Your task to perform on an android device: Go to Reddit.com Image 0: 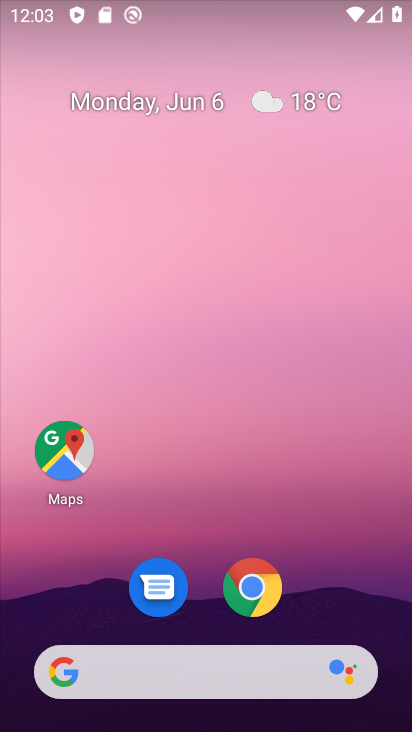
Step 0: drag from (378, 457) to (368, 142)
Your task to perform on an android device: Go to Reddit.com Image 1: 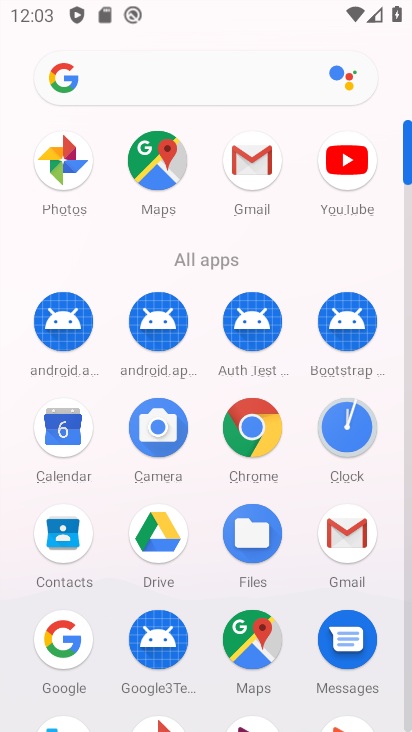
Step 1: drag from (324, 611) to (335, 332)
Your task to perform on an android device: Go to Reddit.com Image 2: 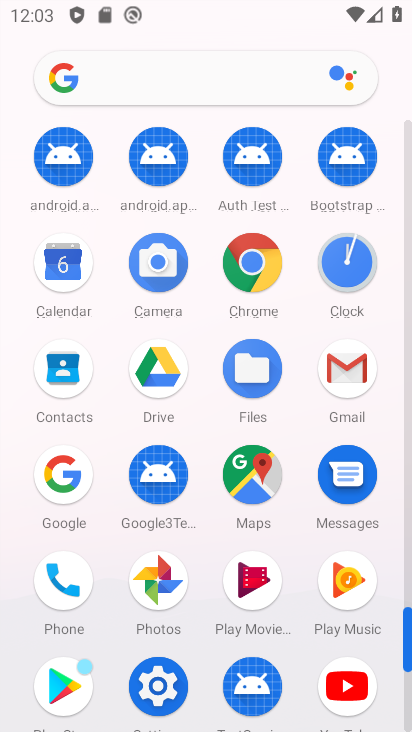
Step 2: click (265, 260)
Your task to perform on an android device: Go to Reddit.com Image 3: 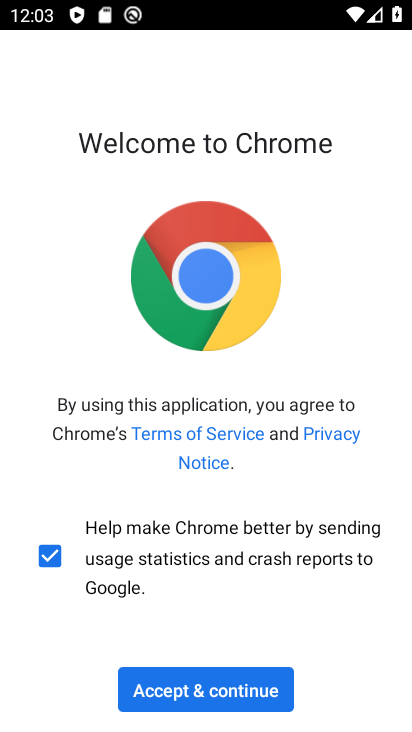
Step 3: click (169, 694)
Your task to perform on an android device: Go to Reddit.com Image 4: 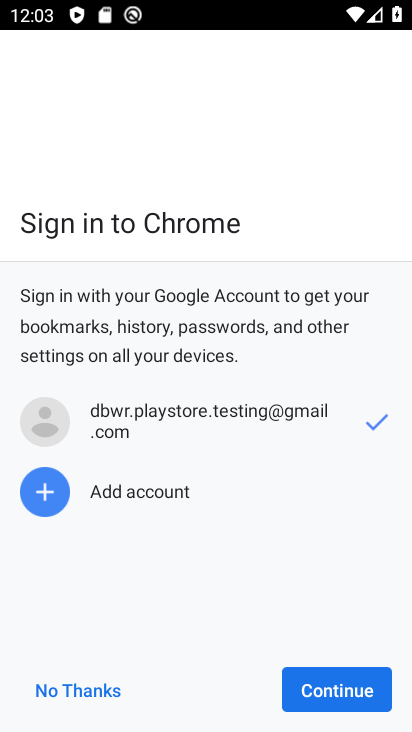
Step 4: click (321, 679)
Your task to perform on an android device: Go to Reddit.com Image 5: 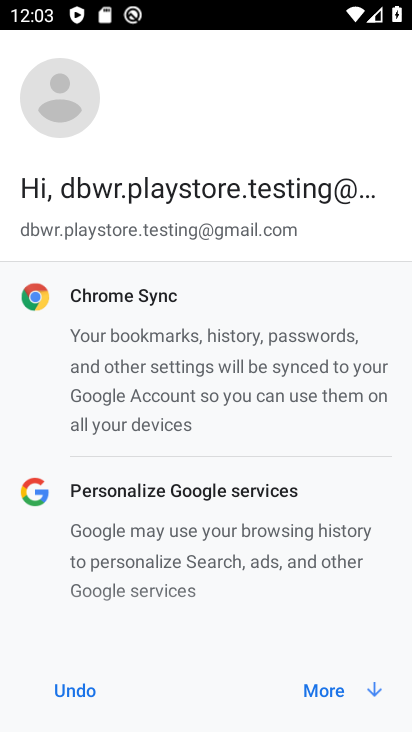
Step 5: click (323, 685)
Your task to perform on an android device: Go to Reddit.com Image 6: 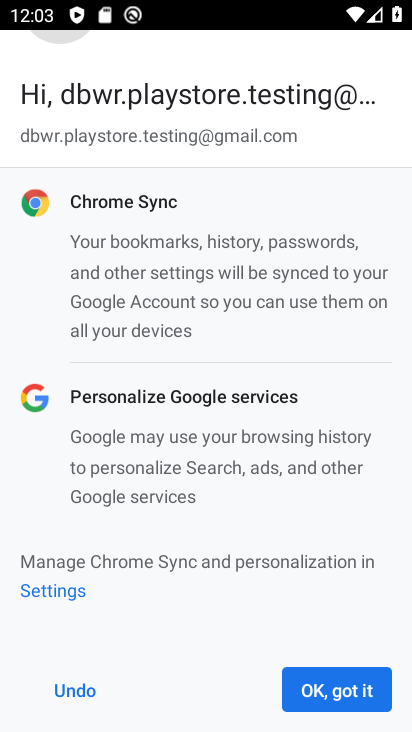
Step 6: click (323, 685)
Your task to perform on an android device: Go to Reddit.com Image 7: 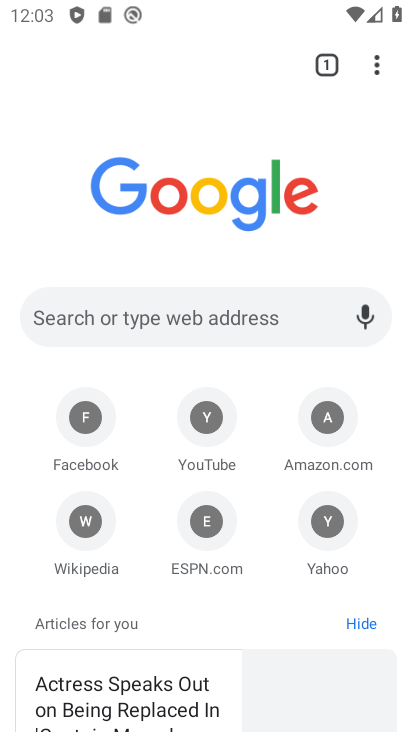
Step 7: click (223, 319)
Your task to perform on an android device: Go to Reddit.com Image 8: 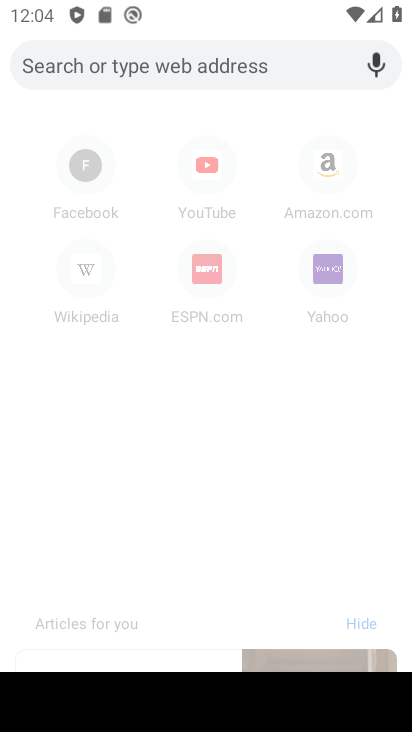
Step 8: type "reddit.com"
Your task to perform on an android device: Go to Reddit.com Image 9: 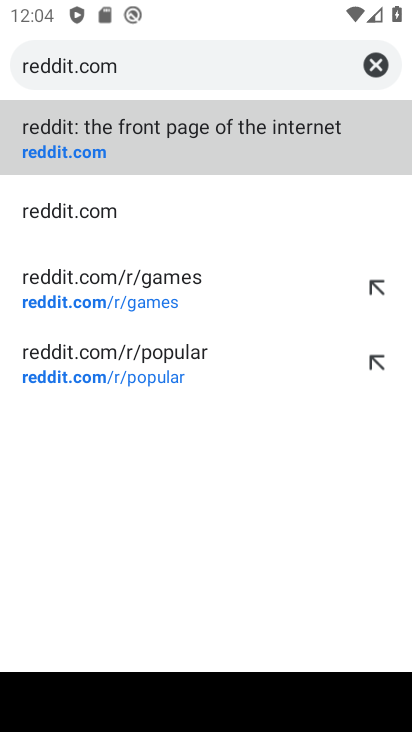
Step 9: click (188, 139)
Your task to perform on an android device: Go to Reddit.com Image 10: 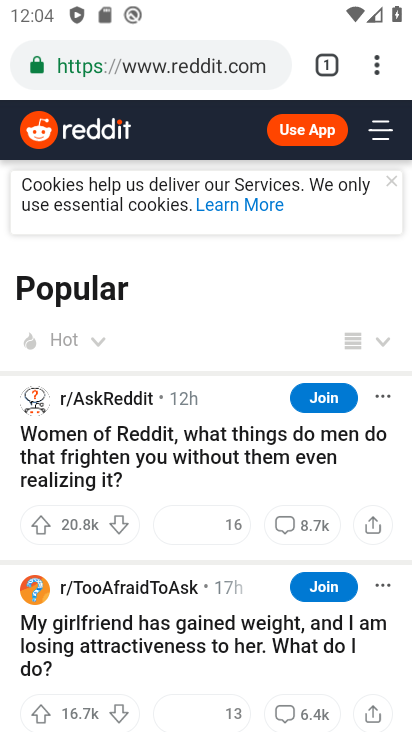
Step 10: task complete